Your task to perform on an android device: find which apps use the phone's location Image 0: 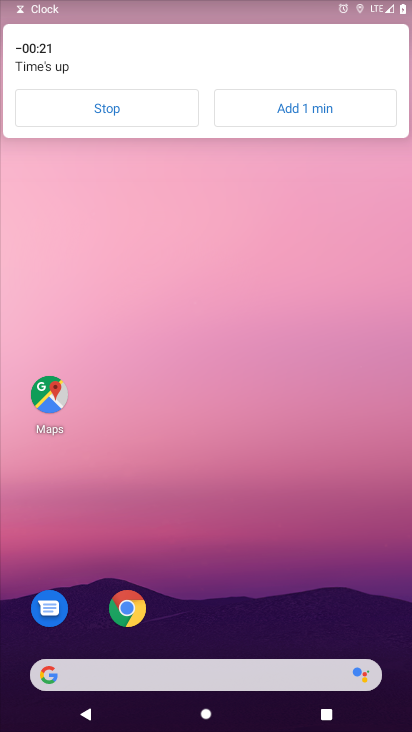
Step 0: click (142, 87)
Your task to perform on an android device: find which apps use the phone's location Image 1: 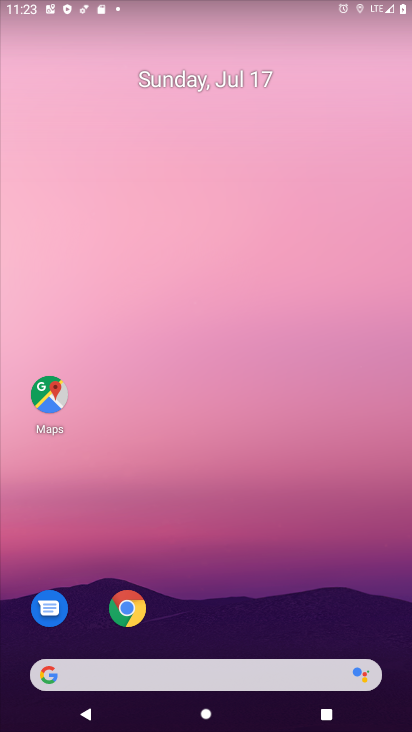
Step 1: drag from (195, 653) to (156, 5)
Your task to perform on an android device: find which apps use the phone's location Image 2: 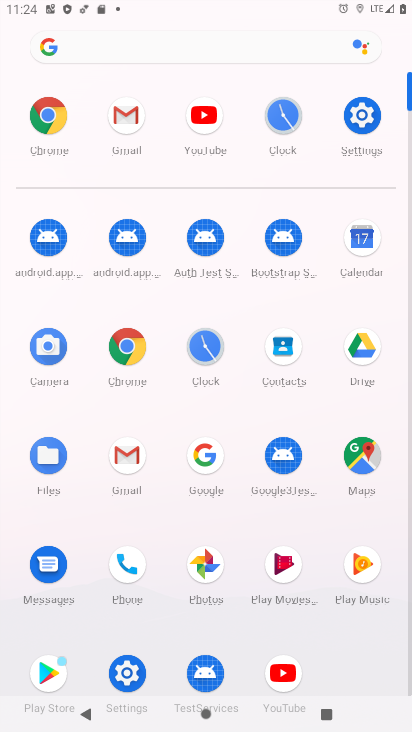
Step 2: click (370, 117)
Your task to perform on an android device: find which apps use the phone's location Image 3: 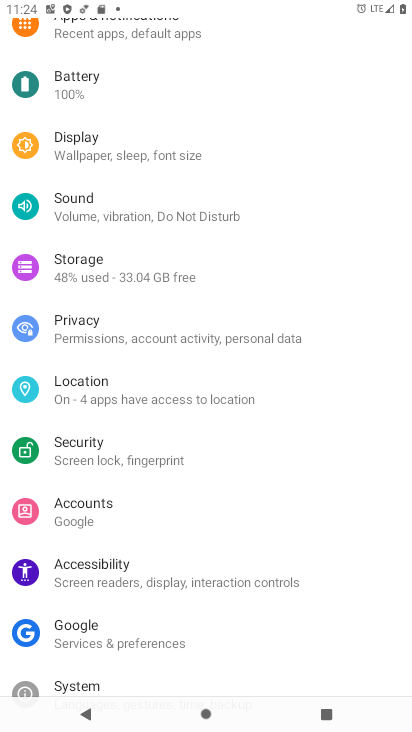
Step 3: click (109, 393)
Your task to perform on an android device: find which apps use the phone's location Image 4: 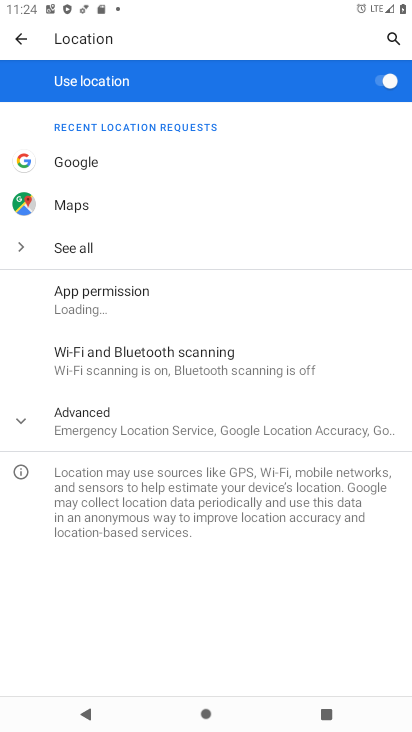
Step 4: click (110, 414)
Your task to perform on an android device: find which apps use the phone's location Image 5: 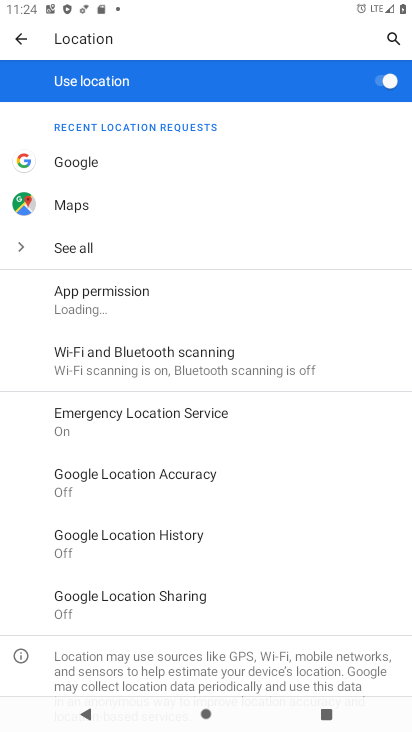
Step 5: click (81, 252)
Your task to perform on an android device: find which apps use the phone's location Image 6: 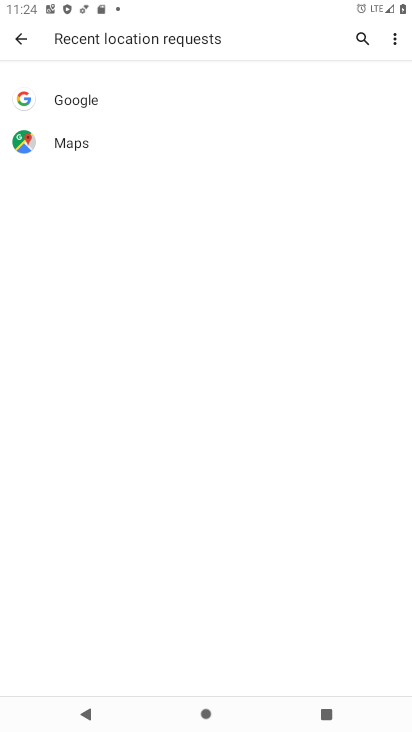
Step 6: task complete